Your task to perform on an android device: allow cookies in the chrome app Image 0: 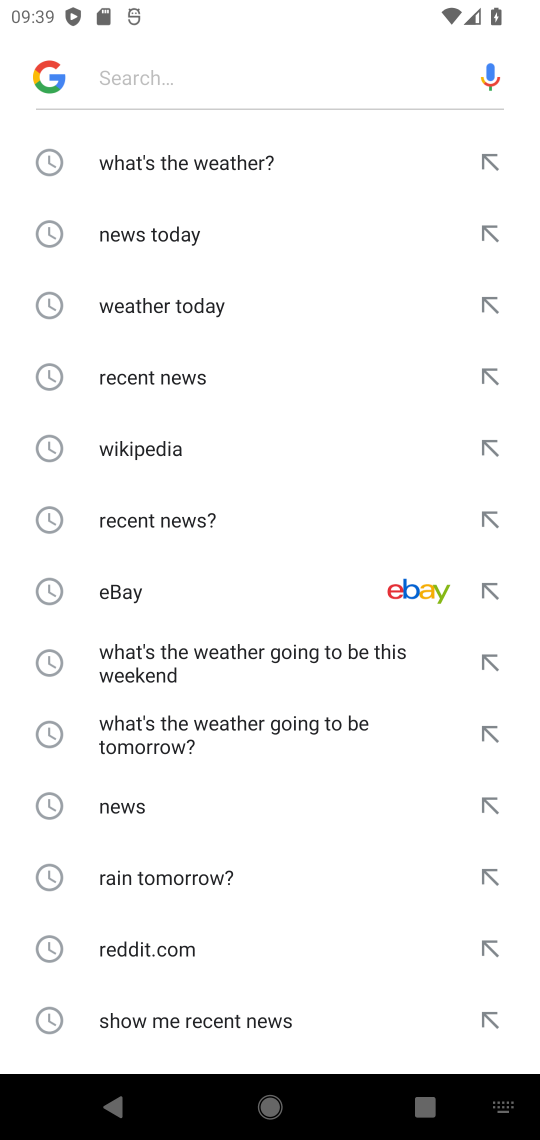
Step 0: press back button
Your task to perform on an android device: allow cookies in the chrome app Image 1: 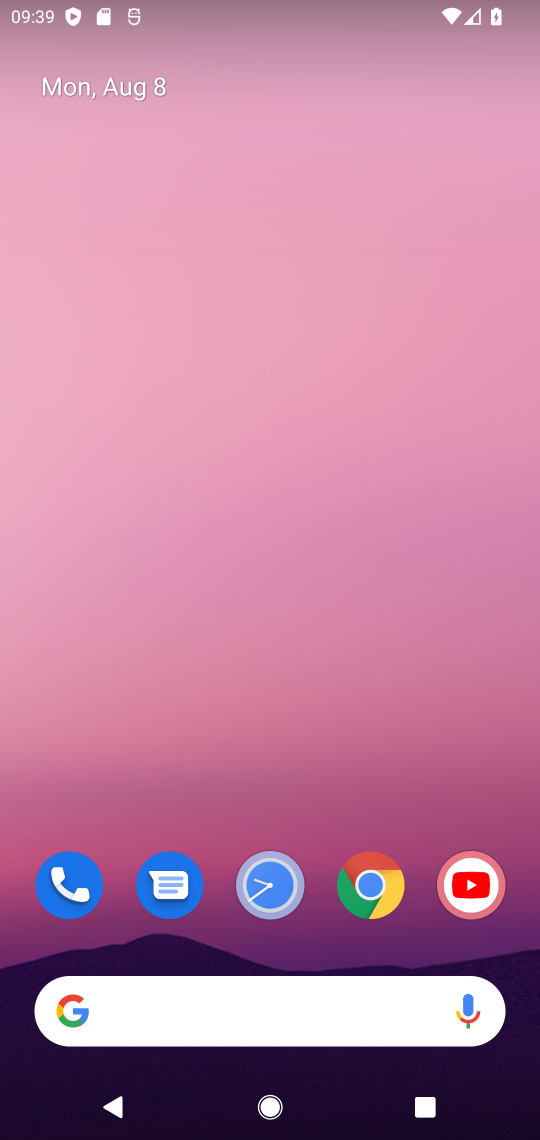
Step 1: click (351, 816)
Your task to perform on an android device: allow cookies in the chrome app Image 2: 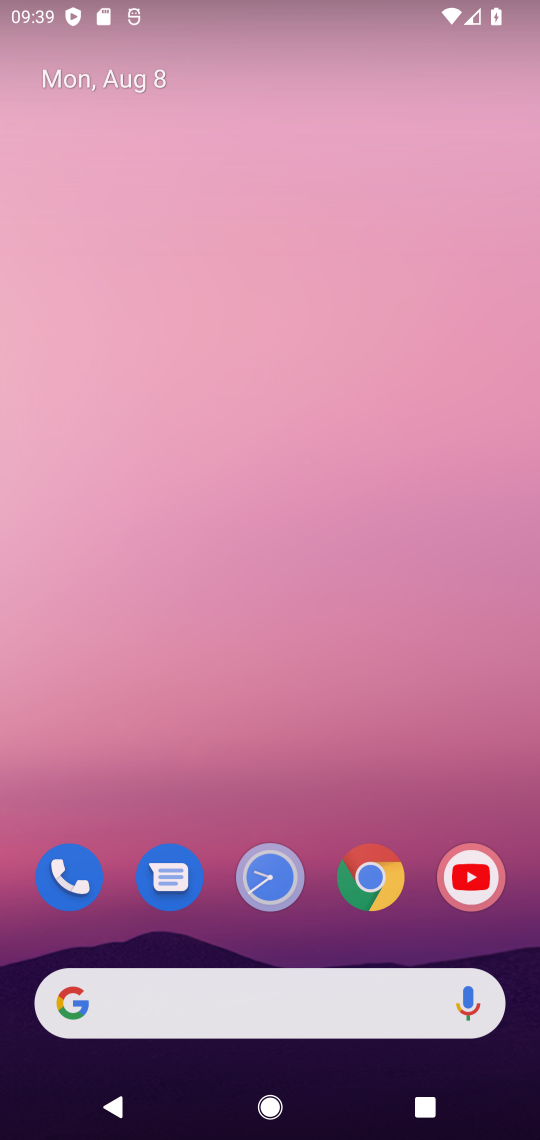
Step 2: click (380, 87)
Your task to perform on an android device: allow cookies in the chrome app Image 3: 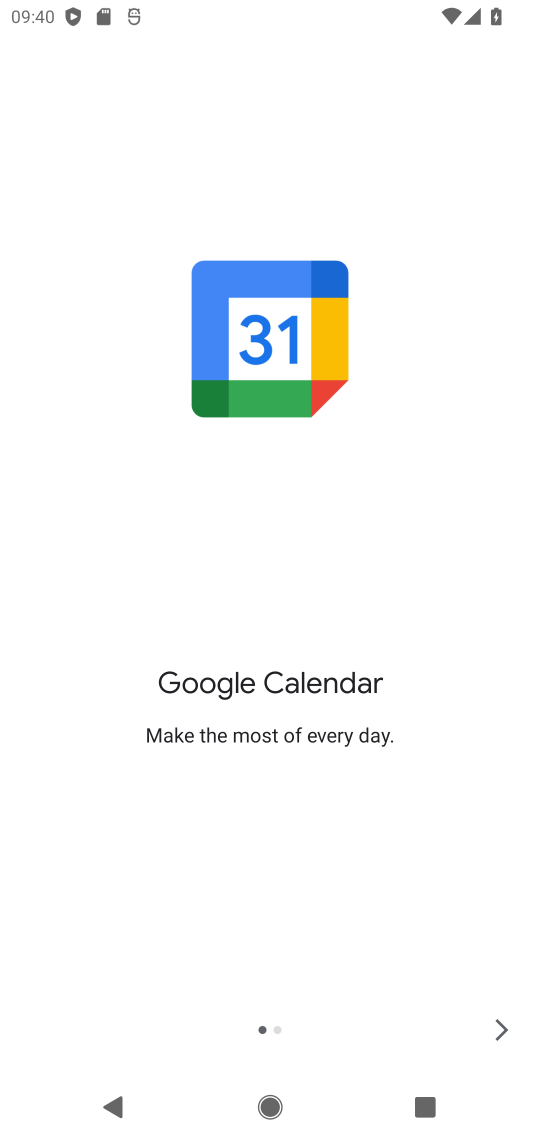
Step 3: press home button
Your task to perform on an android device: allow cookies in the chrome app Image 4: 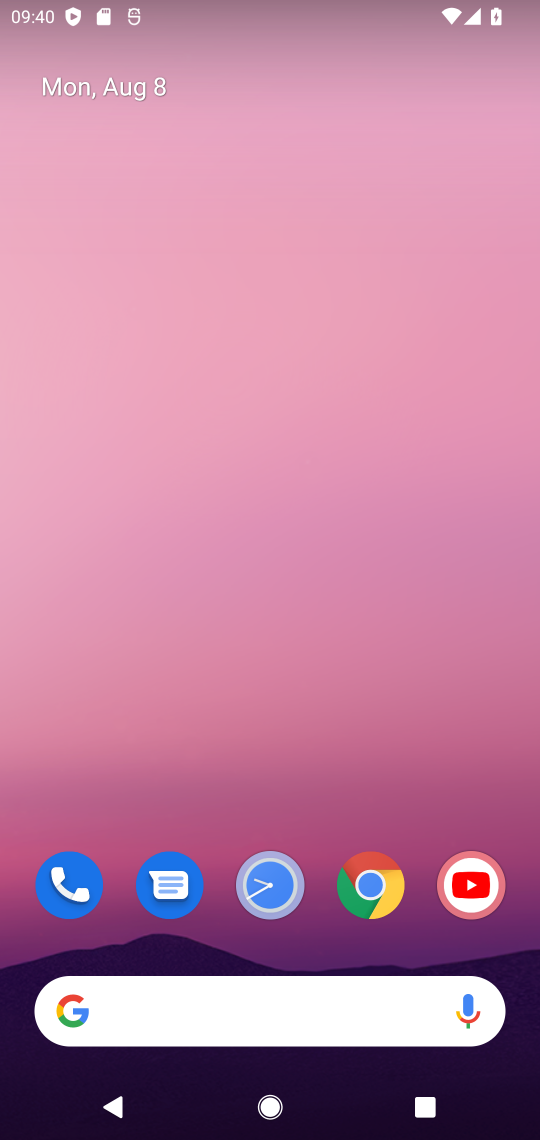
Step 4: drag from (298, 747) to (529, 95)
Your task to perform on an android device: allow cookies in the chrome app Image 5: 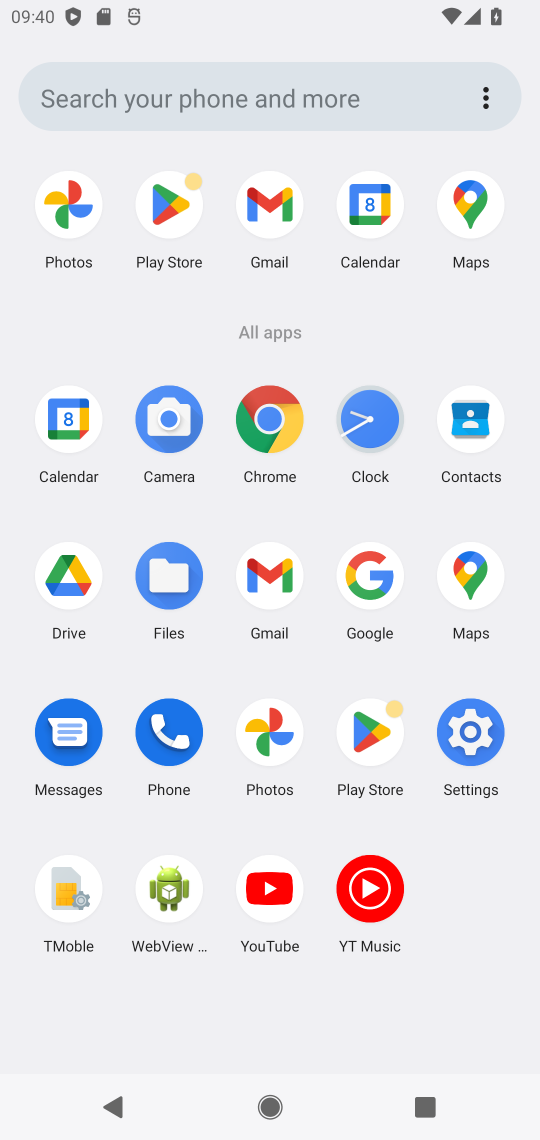
Step 5: click (270, 436)
Your task to perform on an android device: allow cookies in the chrome app Image 6: 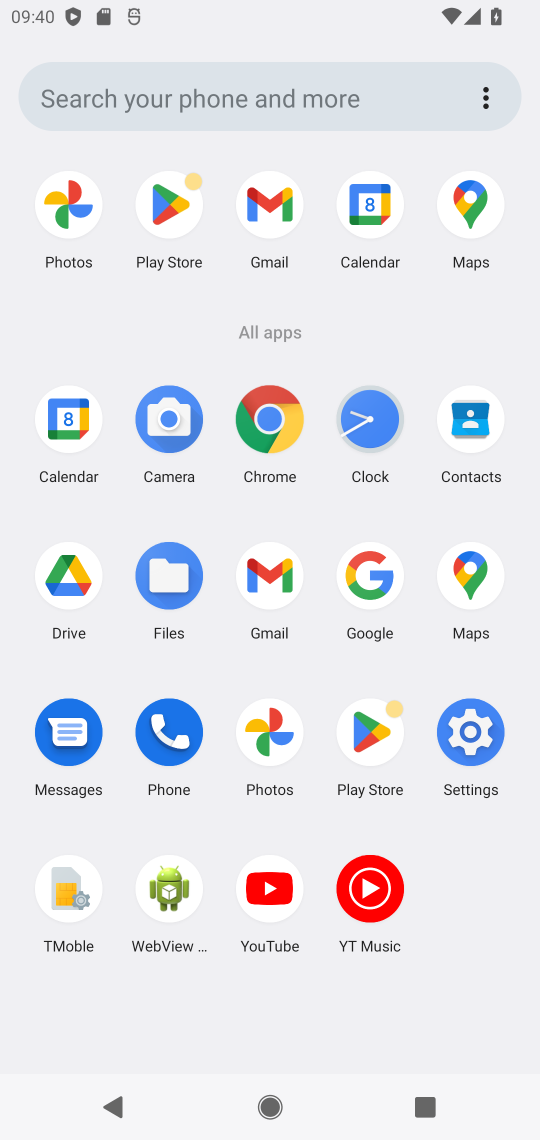
Step 6: click (270, 436)
Your task to perform on an android device: allow cookies in the chrome app Image 7: 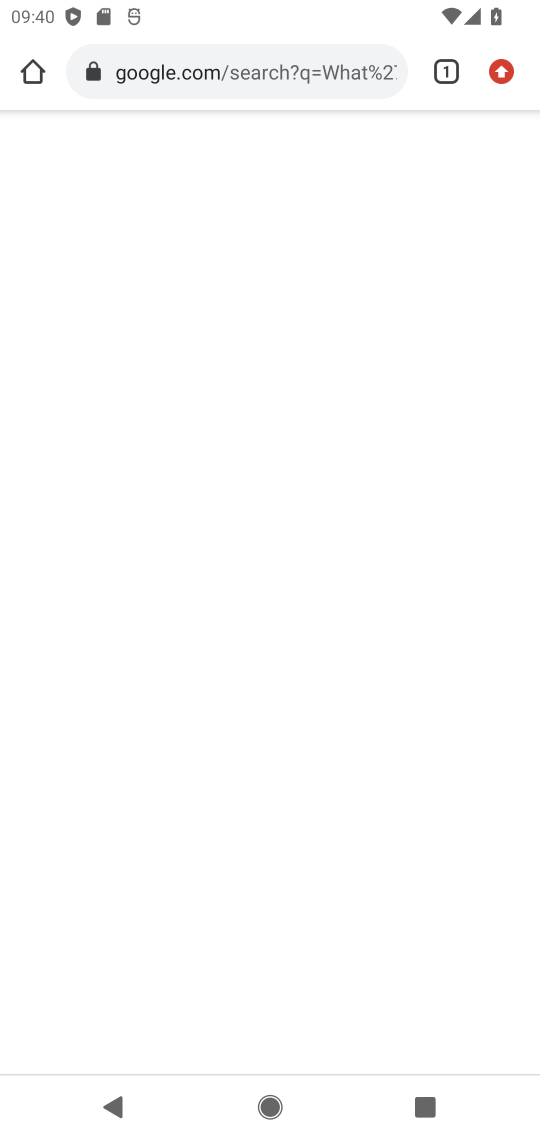
Step 7: drag from (505, 70) to (266, 1002)
Your task to perform on an android device: allow cookies in the chrome app Image 8: 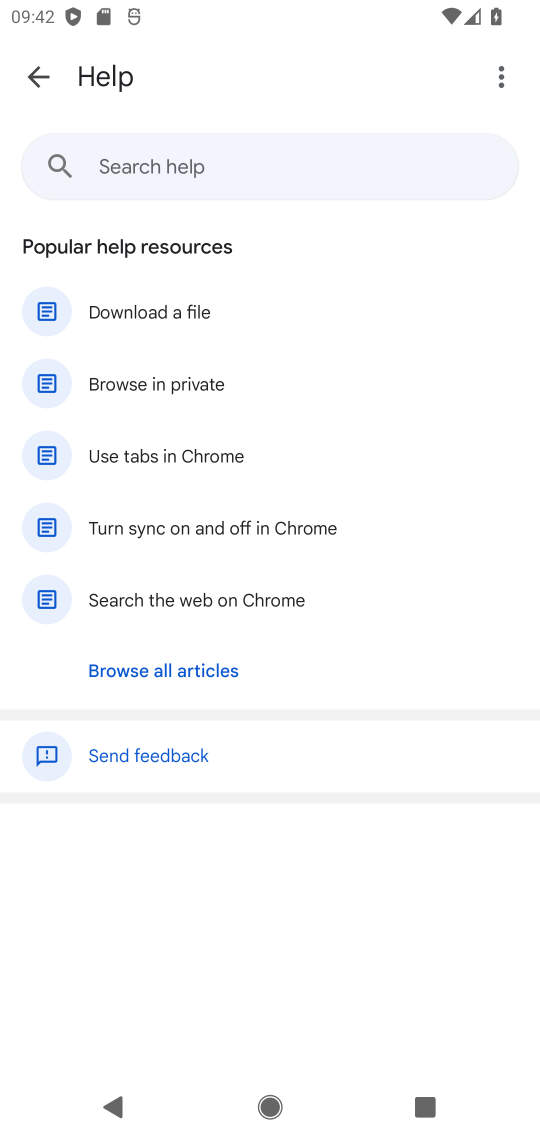
Step 8: click (46, 75)
Your task to perform on an android device: allow cookies in the chrome app Image 9: 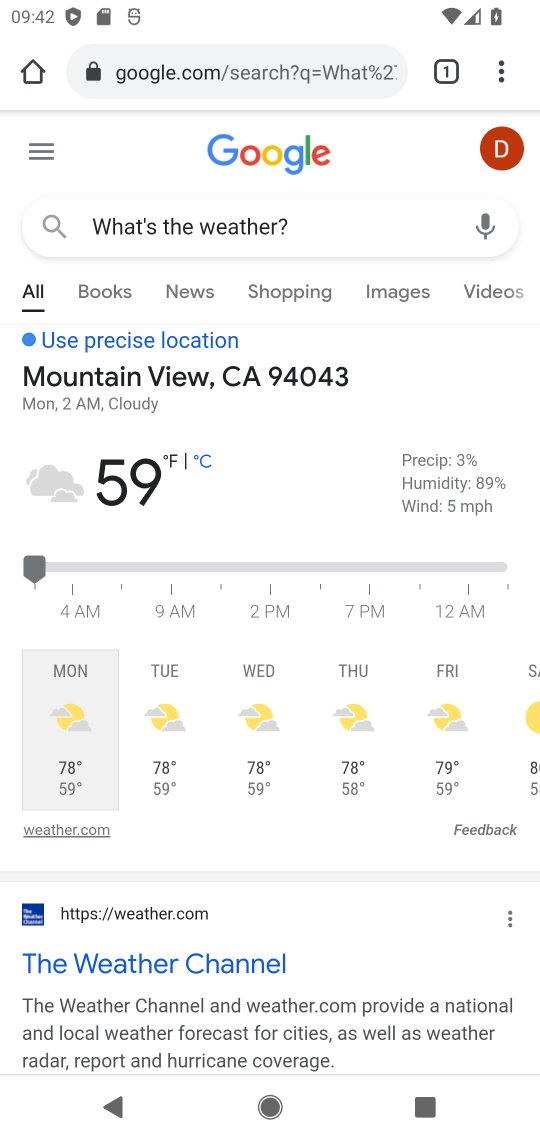
Step 9: drag from (519, 62) to (297, 990)
Your task to perform on an android device: allow cookies in the chrome app Image 10: 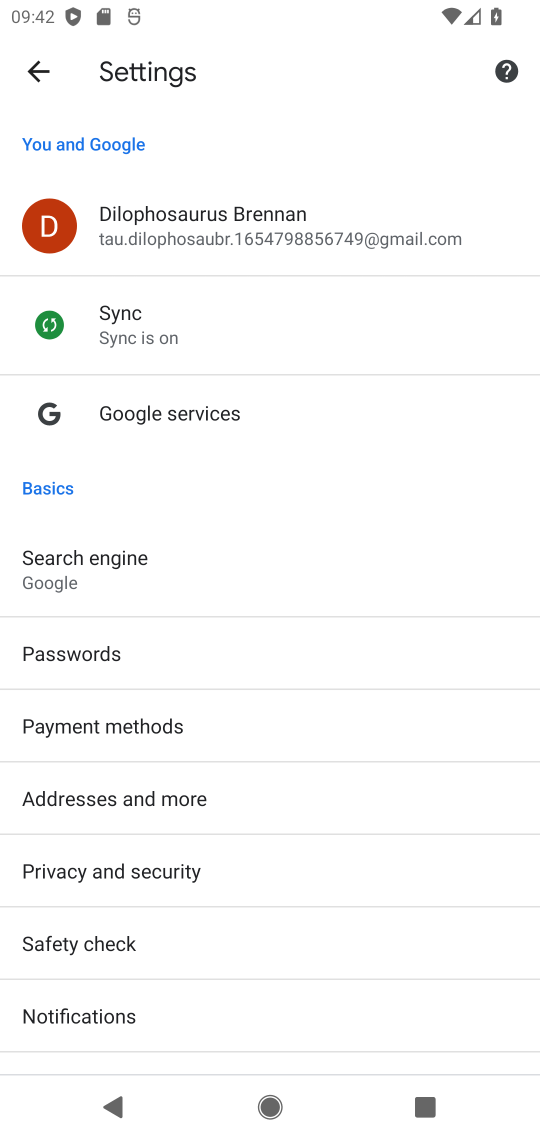
Step 10: drag from (224, 741) to (210, 57)
Your task to perform on an android device: allow cookies in the chrome app Image 11: 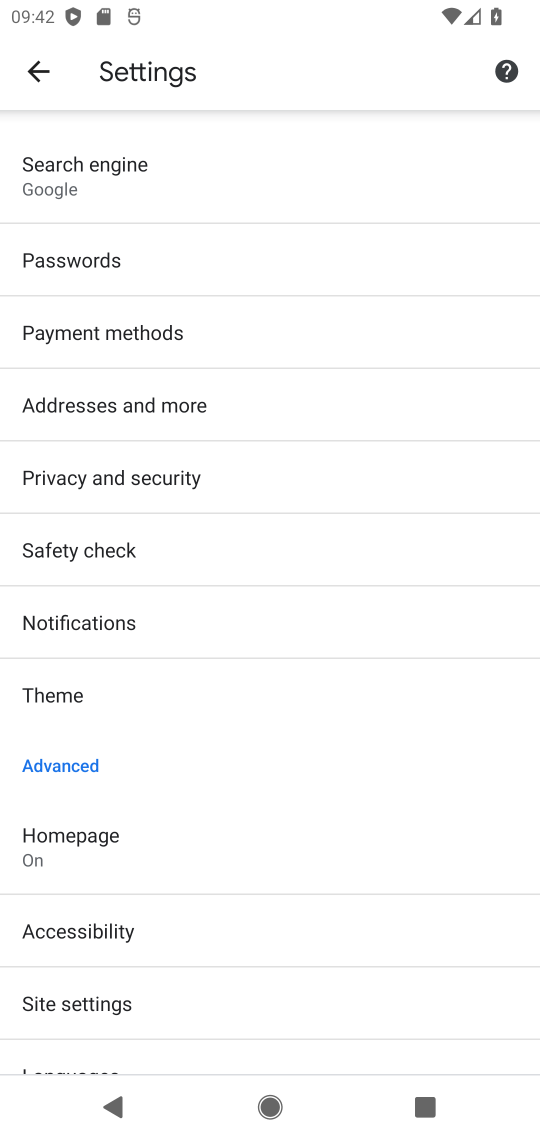
Step 11: click (205, 1004)
Your task to perform on an android device: allow cookies in the chrome app Image 12: 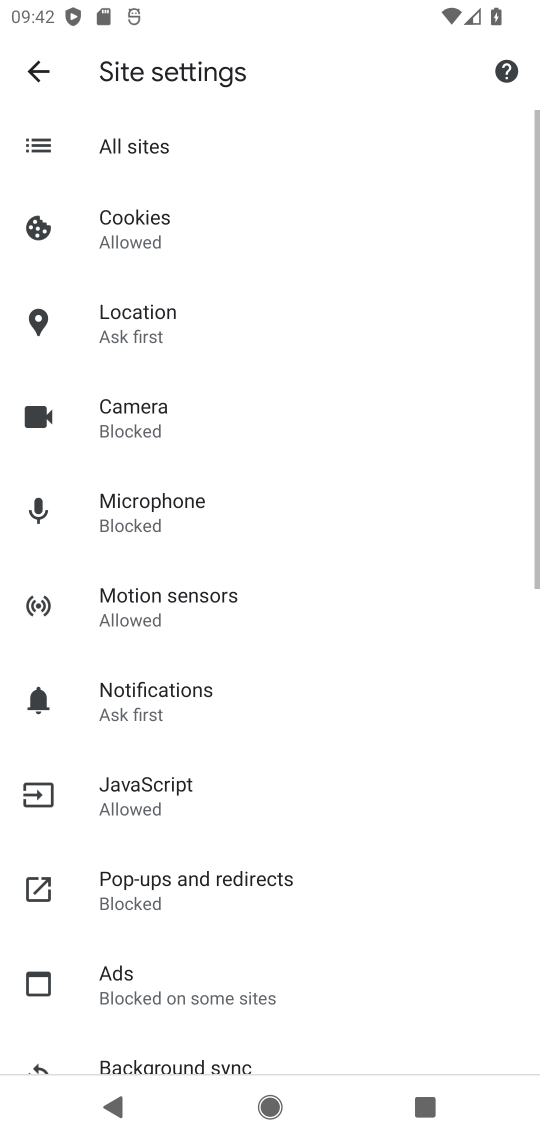
Step 12: click (168, 248)
Your task to perform on an android device: allow cookies in the chrome app Image 13: 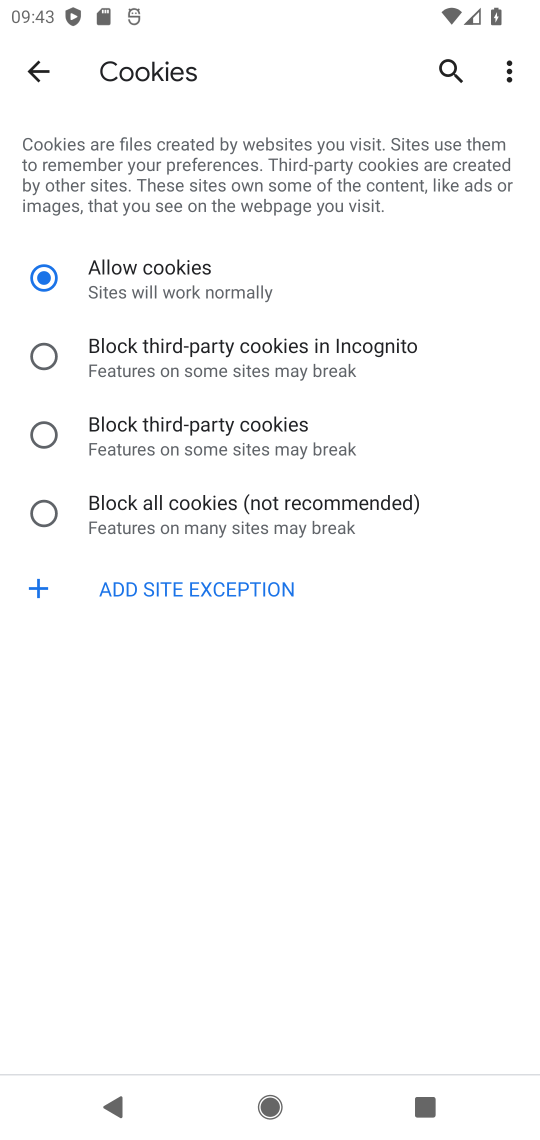
Step 13: press home button
Your task to perform on an android device: allow cookies in the chrome app Image 14: 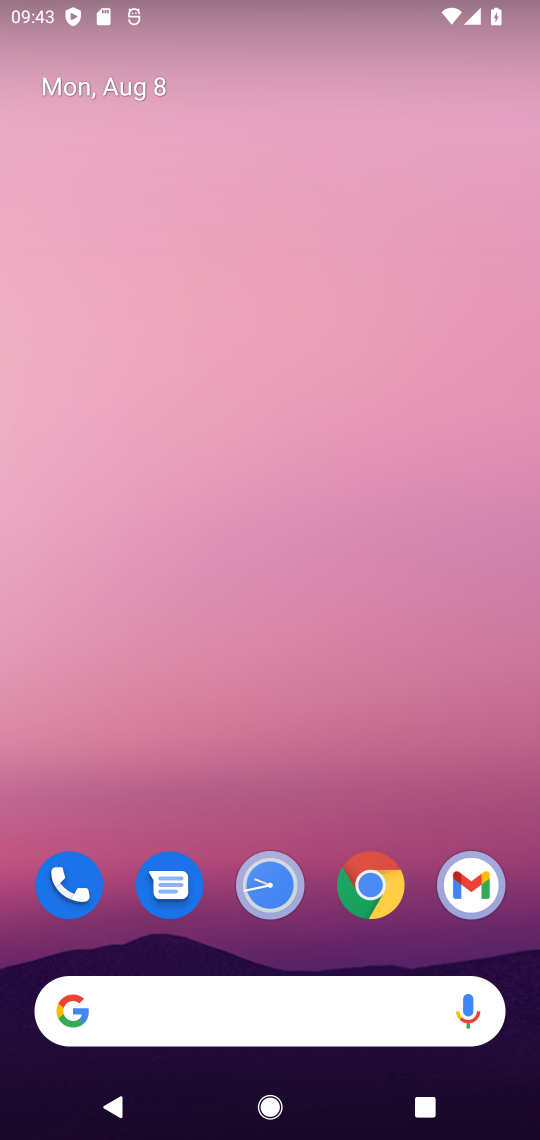
Step 14: drag from (455, 775) to (485, 187)
Your task to perform on an android device: allow cookies in the chrome app Image 15: 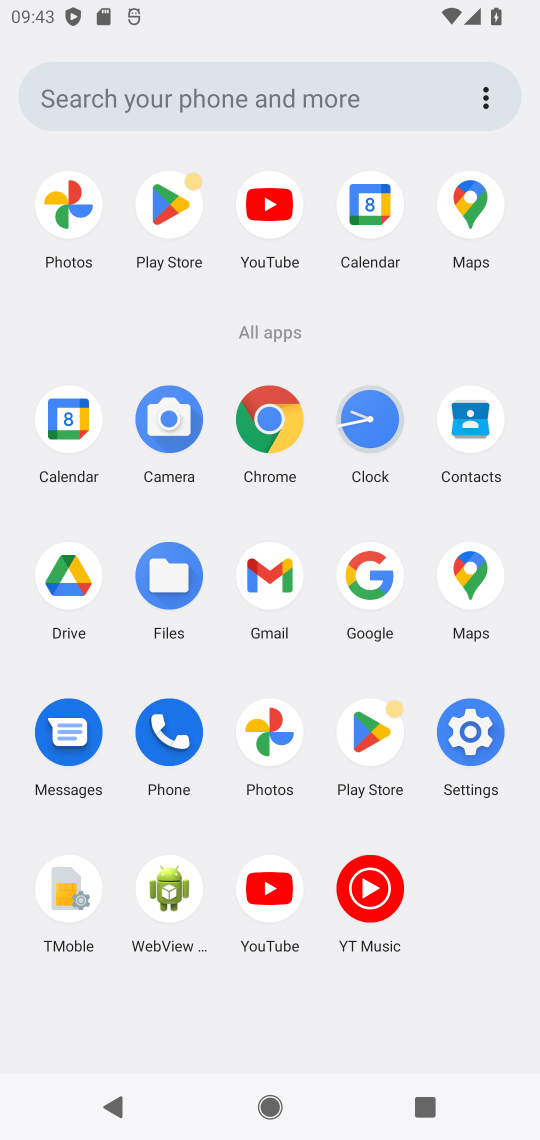
Step 15: click (258, 382)
Your task to perform on an android device: allow cookies in the chrome app Image 16: 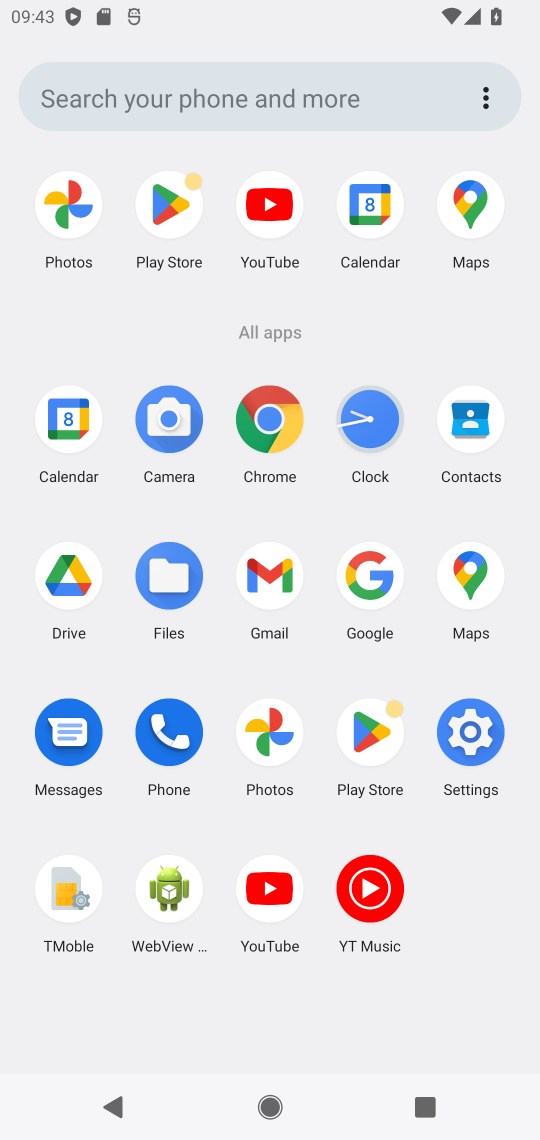
Step 16: click (295, 398)
Your task to perform on an android device: allow cookies in the chrome app Image 17: 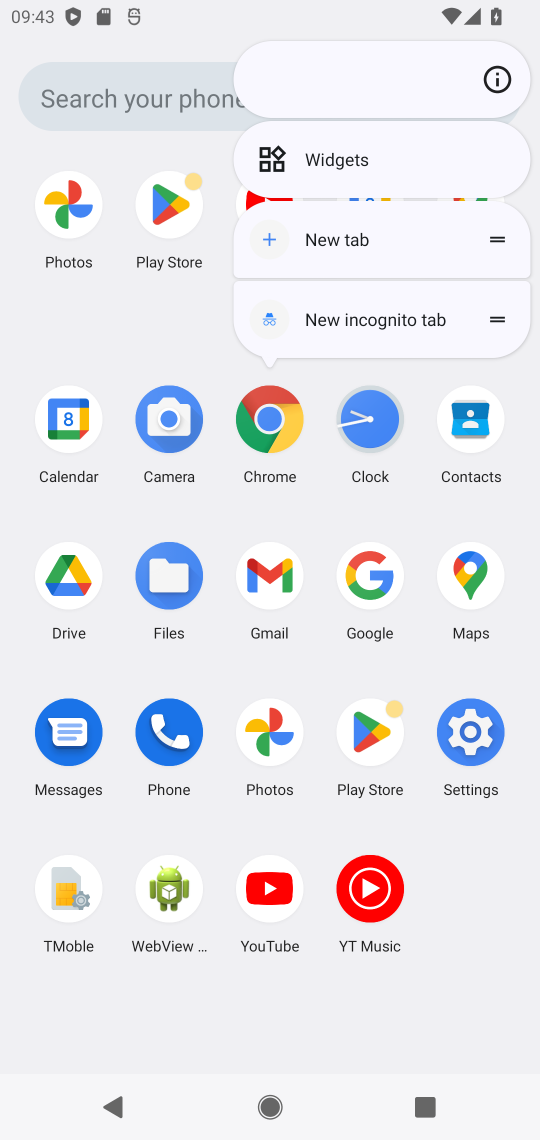
Step 17: click (284, 425)
Your task to perform on an android device: allow cookies in the chrome app Image 18: 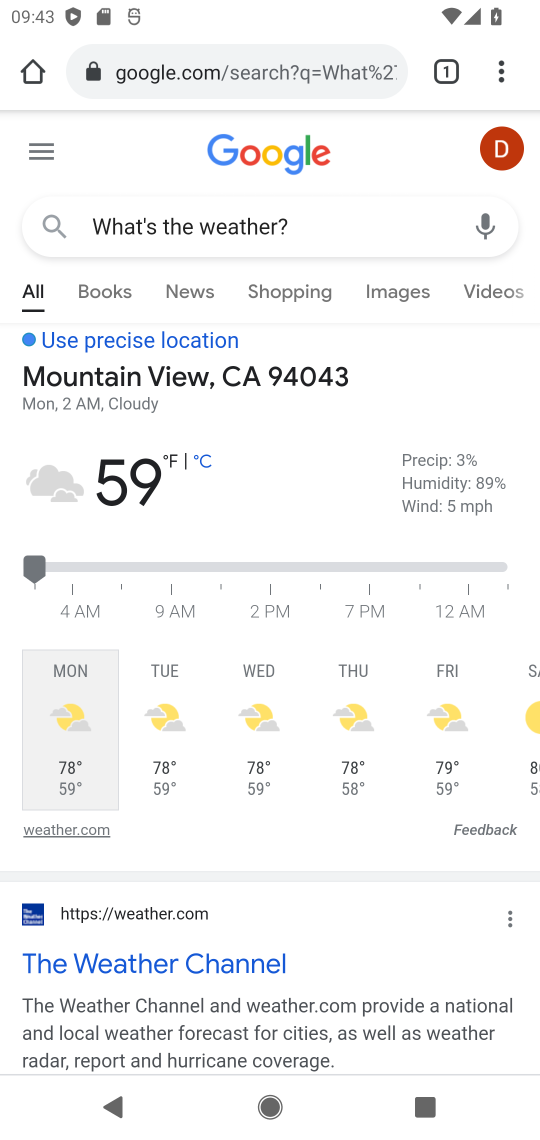
Step 18: drag from (500, 64) to (292, 973)
Your task to perform on an android device: allow cookies in the chrome app Image 19: 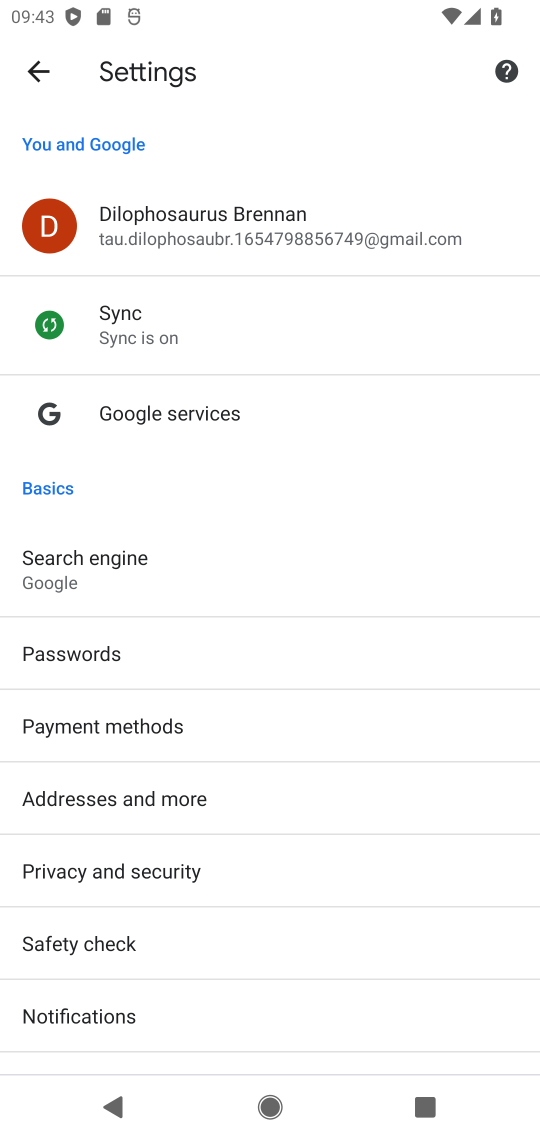
Step 19: drag from (178, 939) to (234, 275)
Your task to perform on an android device: allow cookies in the chrome app Image 20: 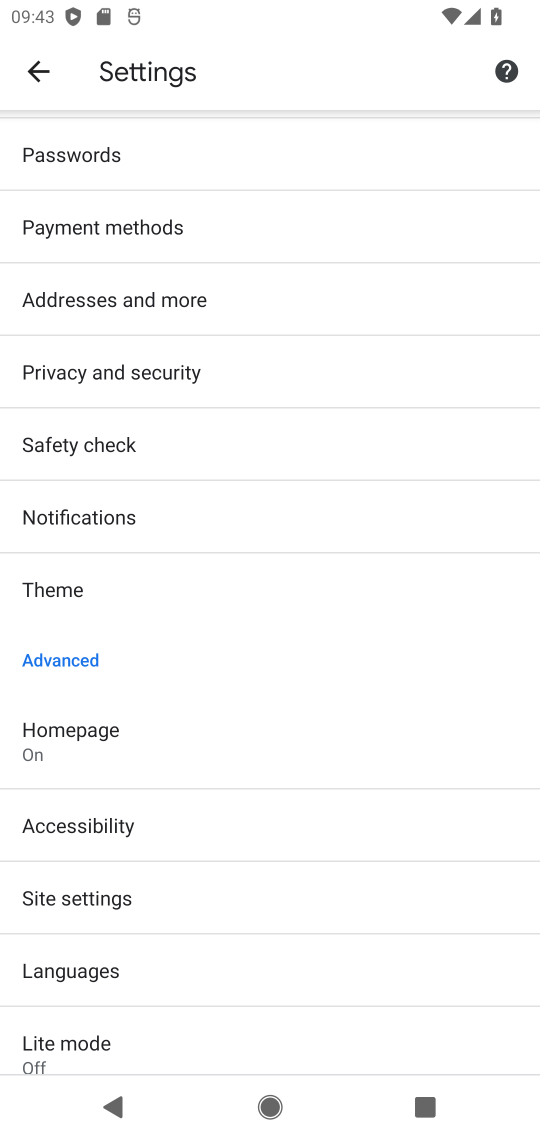
Step 20: click (86, 909)
Your task to perform on an android device: allow cookies in the chrome app Image 21: 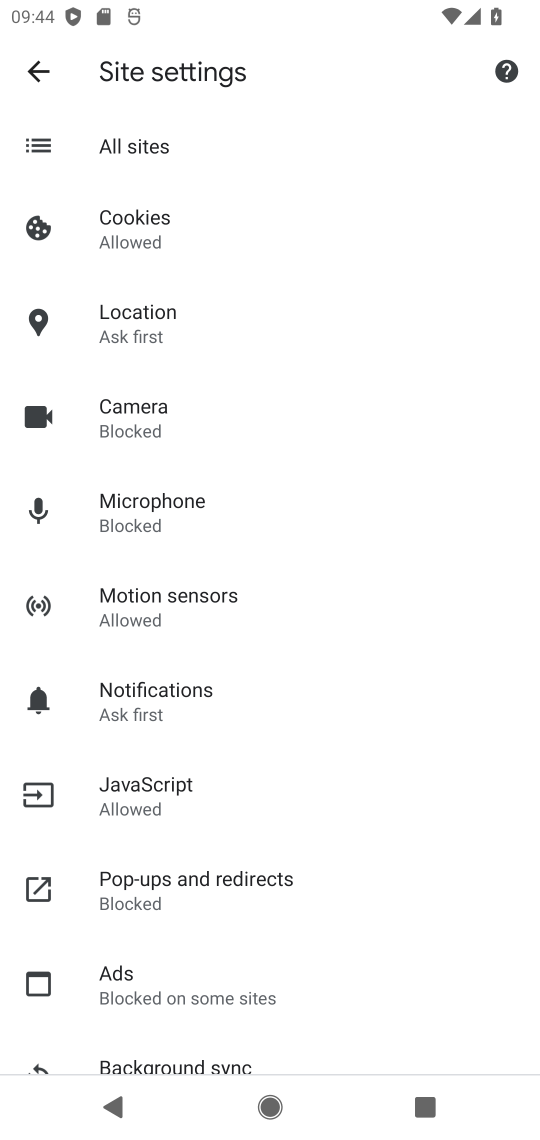
Step 21: click (191, 204)
Your task to perform on an android device: allow cookies in the chrome app Image 22: 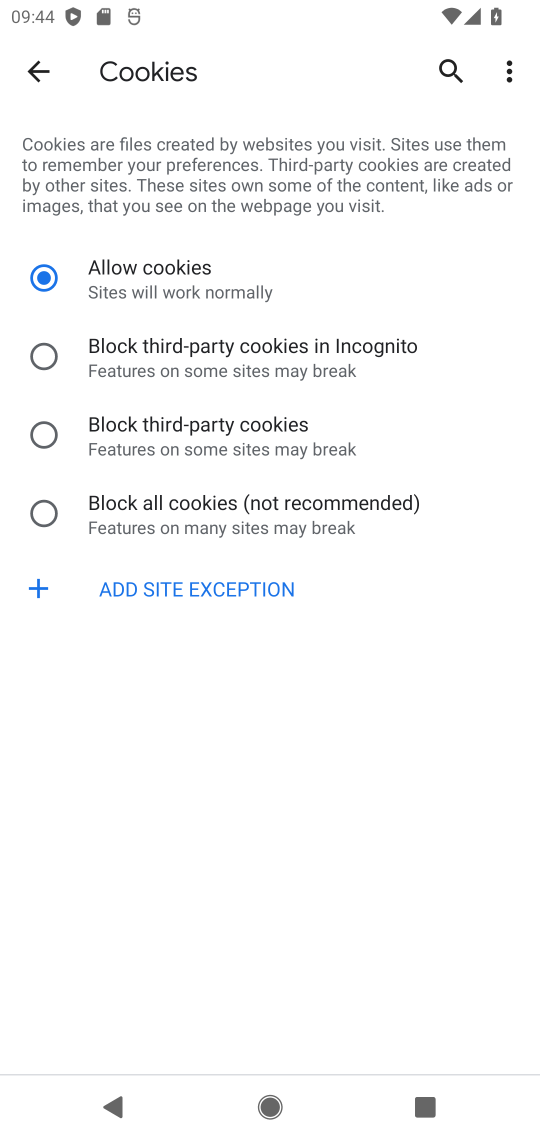
Step 22: click (246, 293)
Your task to perform on an android device: allow cookies in the chrome app Image 23: 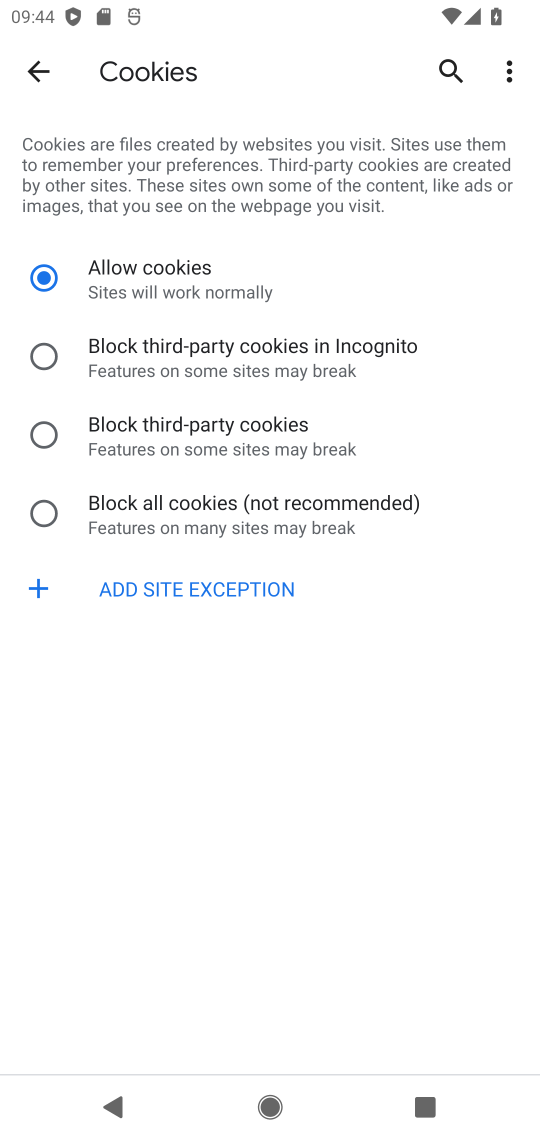
Step 23: task complete